Your task to perform on an android device: toggle airplane mode Image 0: 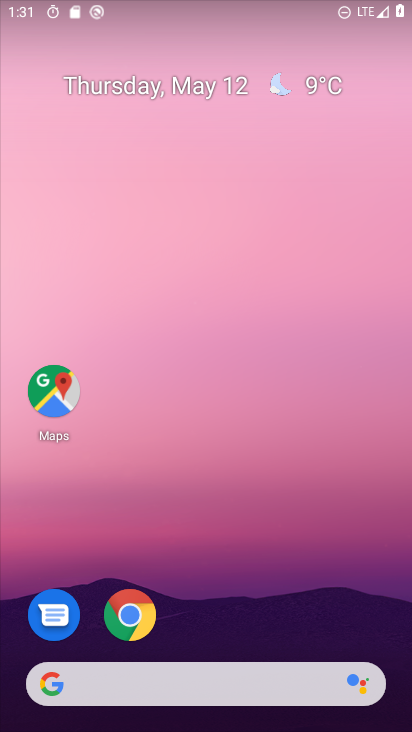
Step 0: drag from (241, 4) to (248, 590)
Your task to perform on an android device: toggle airplane mode Image 1: 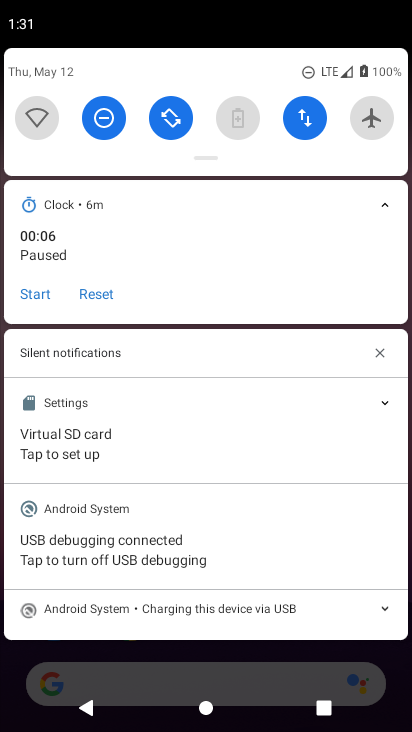
Step 1: click (371, 118)
Your task to perform on an android device: toggle airplane mode Image 2: 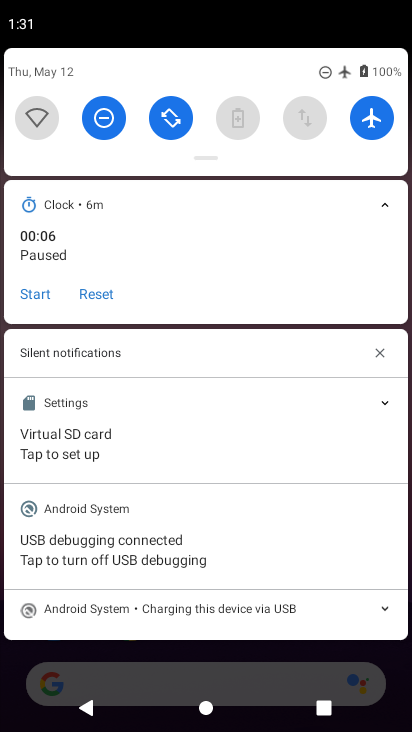
Step 2: task complete